Your task to perform on an android device: Go to ESPN.com Image 0: 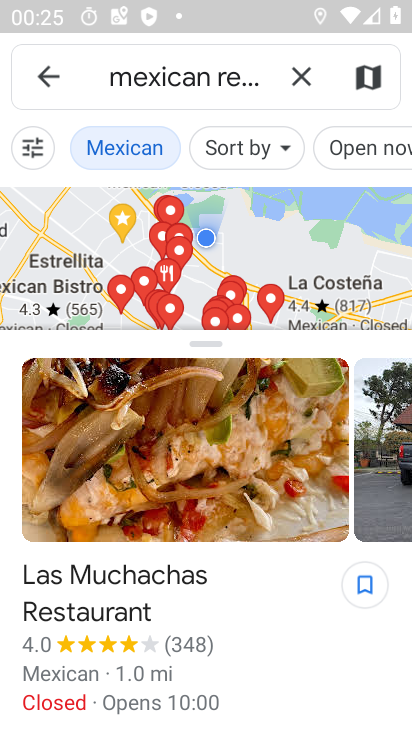
Step 0: press home button
Your task to perform on an android device: Go to ESPN.com Image 1: 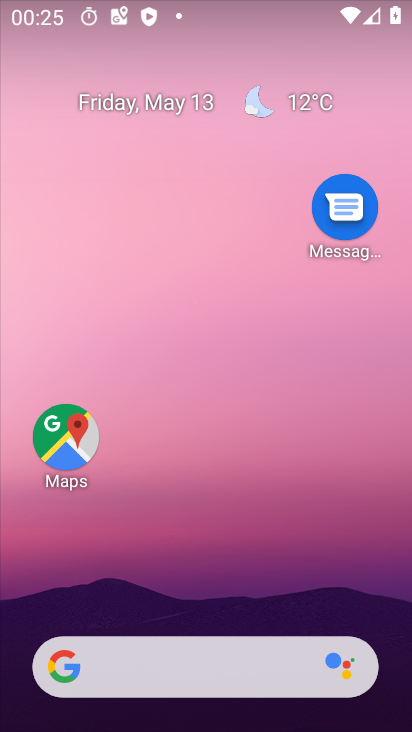
Step 1: drag from (217, 566) to (232, 115)
Your task to perform on an android device: Go to ESPN.com Image 2: 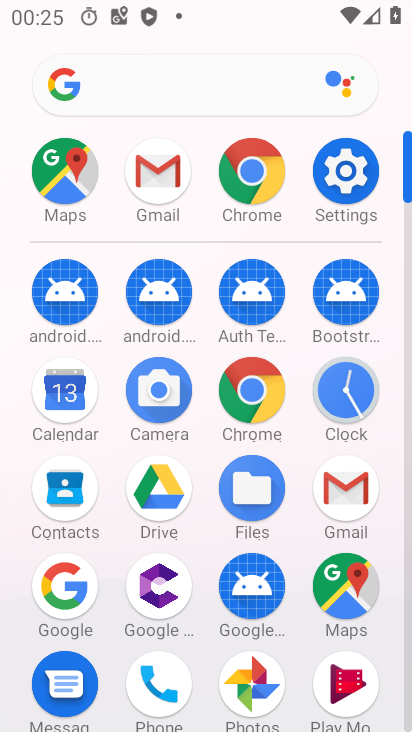
Step 2: click (261, 174)
Your task to perform on an android device: Go to ESPN.com Image 3: 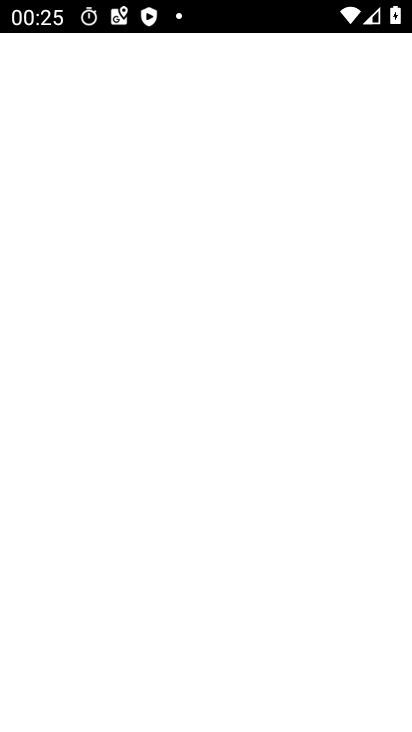
Step 3: click (242, 200)
Your task to perform on an android device: Go to ESPN.com Image 4: 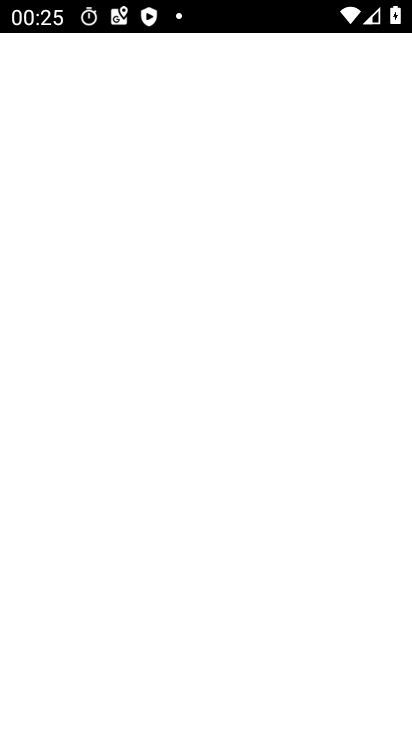
Step 4: click (242, 200)
Your task to perform on an android device: Go to ESPN.com Image 5: 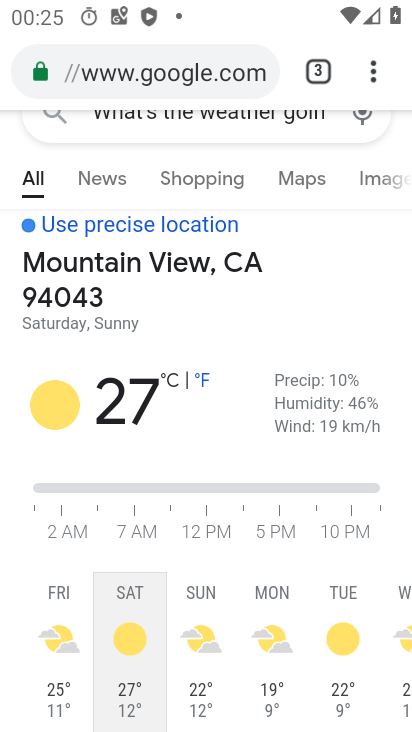
Step 5: click (194, 82)
Your task to perform on an android device: Go to ESPN.com Image 6: 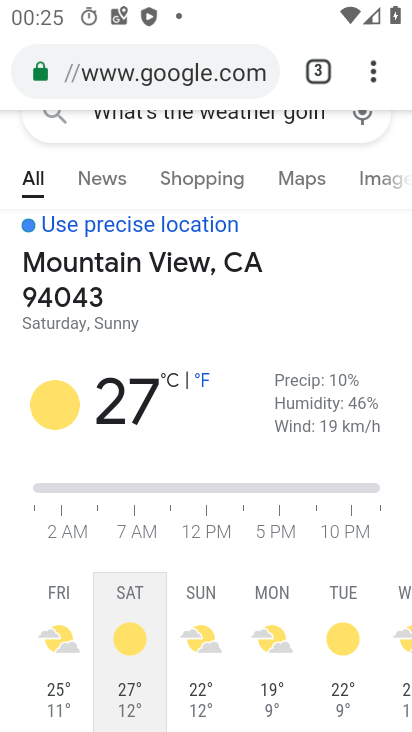
Step 6: click (194, 82)
Your task to perform on an android device: Go to ESPN.com Image 7: 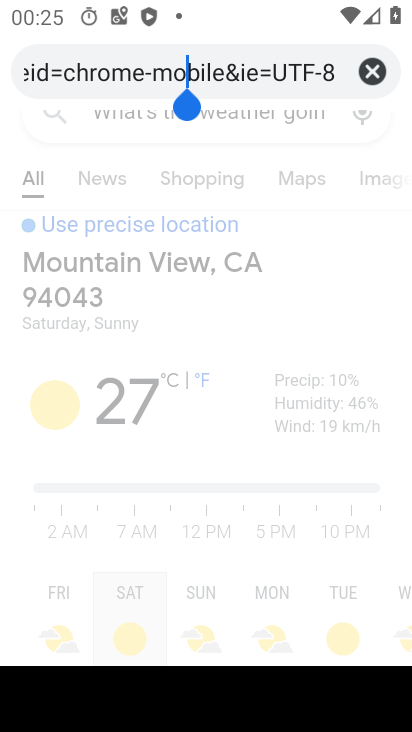
Step 7: click (364, 72)
Your task to perform on an android device: Go to ESPN.com Image 8: 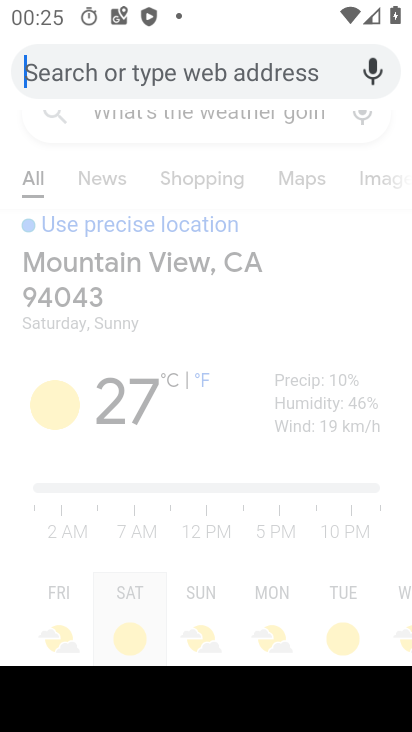
Step 8: type "ESPN.com"
Your task to perform on an android device: Go to ESPN.com Image 9: 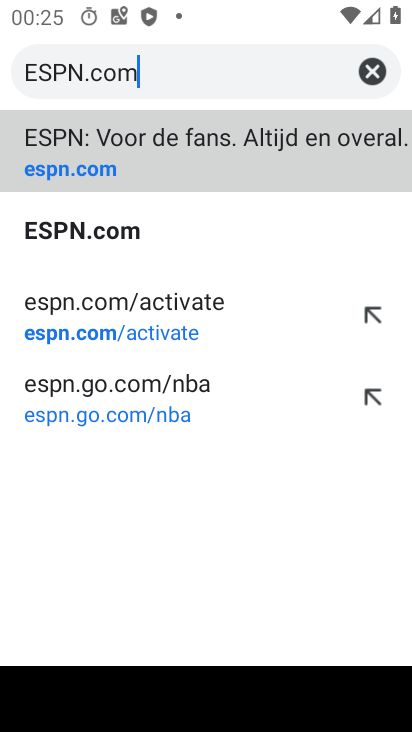
Step 9: click (79, 138)
Your task to perform on an android device: Go to ESPN.com Image 10: 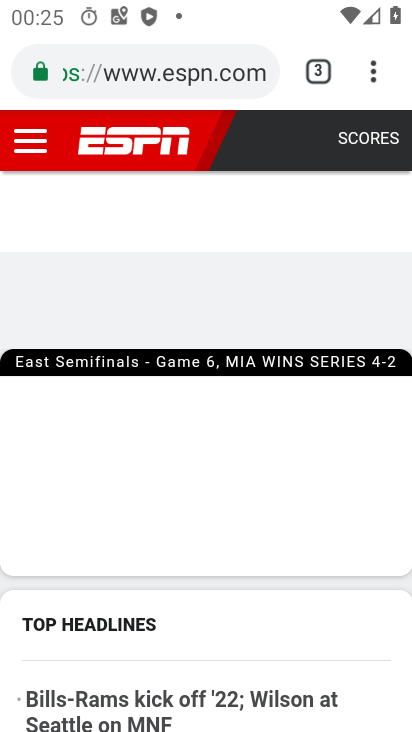
Step 10: task complete